Your task to perform on an android device: Show me popular games on the Play Store Image 0: 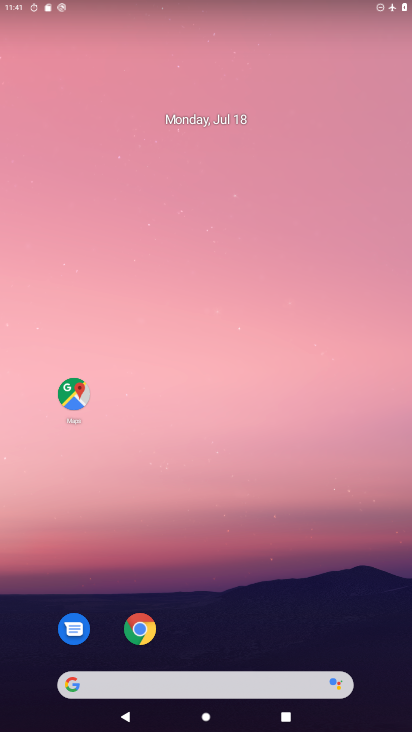
Step 0: drag from (300, 599) to (231, 66)
Your task to perform on an android device: Show me popular games on the Play Store Image 1: 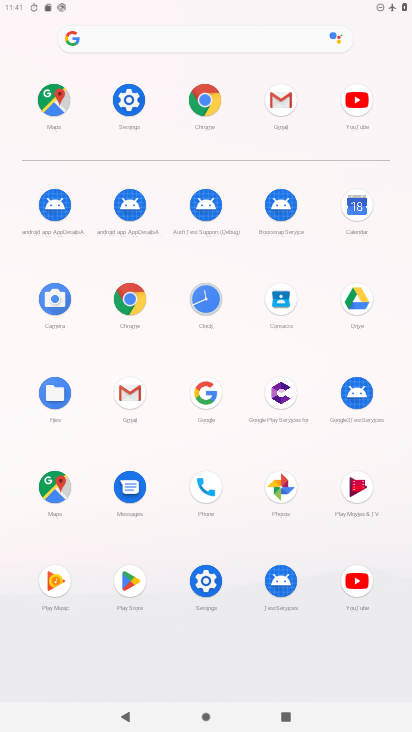
Step 1: click (124, 581)
Your task to perform on an android device: Show me popular games on the Play Store Image 2: 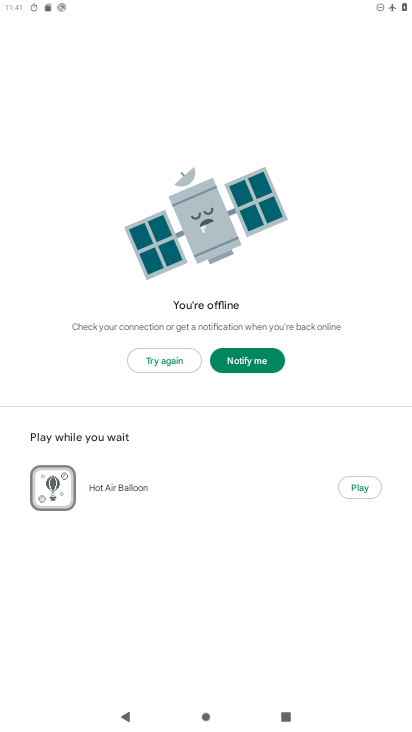
Step 2: task complete